Your task to perform on an android device: toggle data saver in the chrome app Image 0: 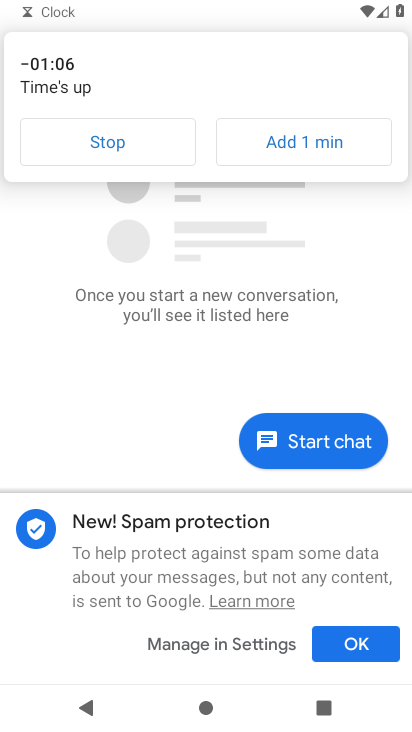
Step 0: press home button
Your task to perform on an android device: toggle data saver in the chrome app Image 1: 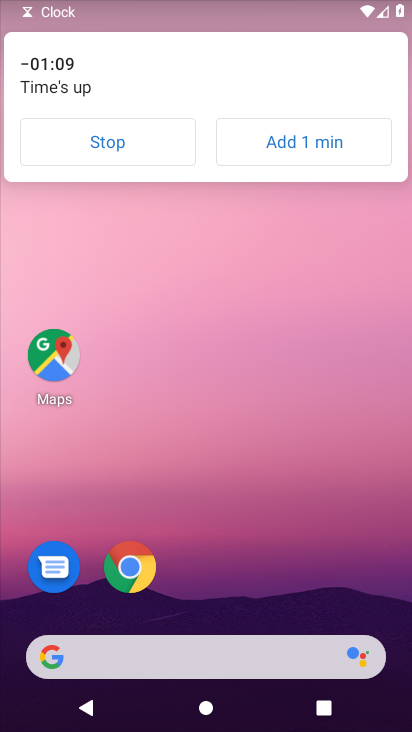
Step 1: drag from (372, 581) to (367, 225)
Your task to perform on an android device: toggle data saver in the chrome app Image 2: 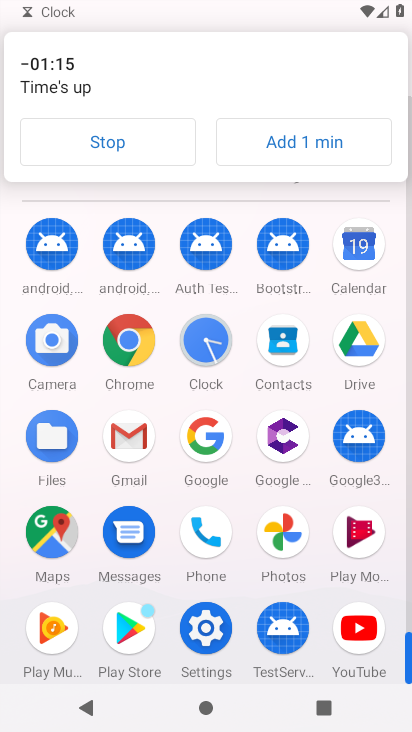
Step 2: click (139, 351)
Your task to perform on an android device: toggle data saver in the chrome app Image 3: 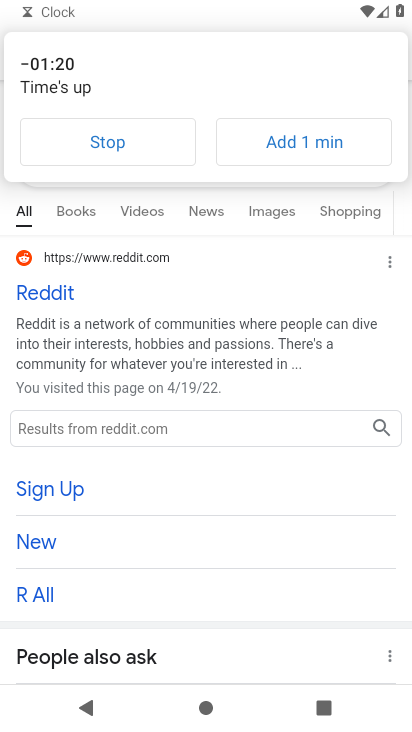
Step 3: click (91, 162)
Your task to perform on an android device: toggle data saver in the chrome app Image 4: 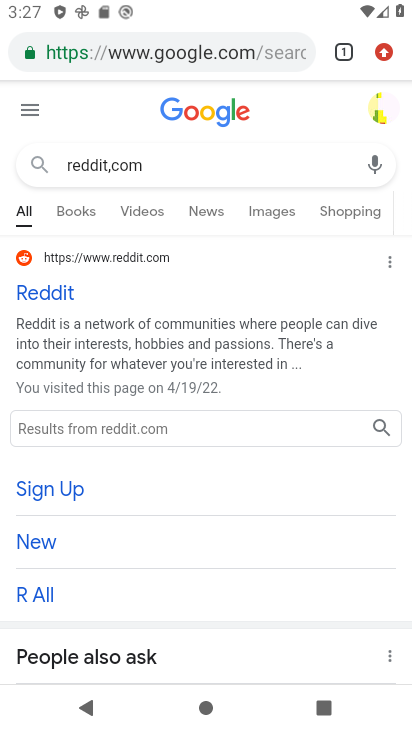
Step 4: click (383, 43)
Your task to perform on an android device: toggle data saver in the chrome app Image 5: 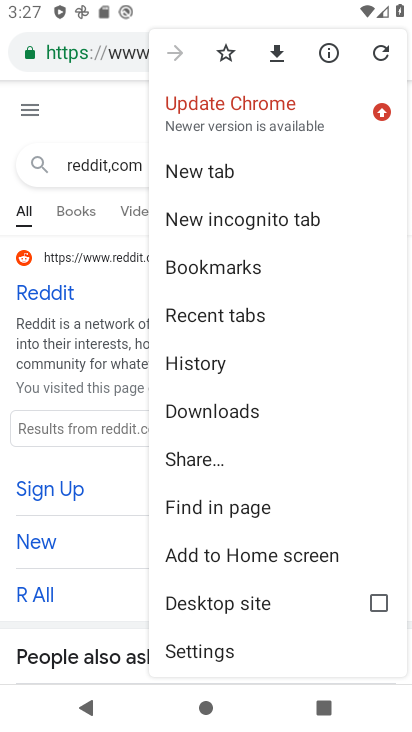
Step 5: click (218, 655)
Your task to perform on an android device: toggle data saver in the chrome app Image 6: 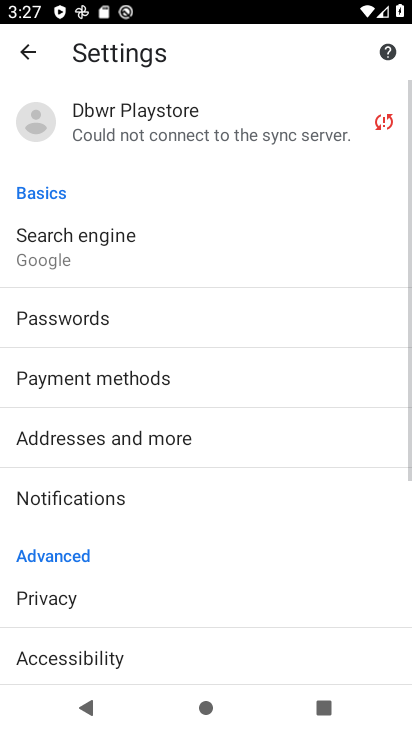
Step 6: drag from (262, 585) to (282, 384)
Your task to perform on an android device: toggle data saver in the chrome app Image 7: 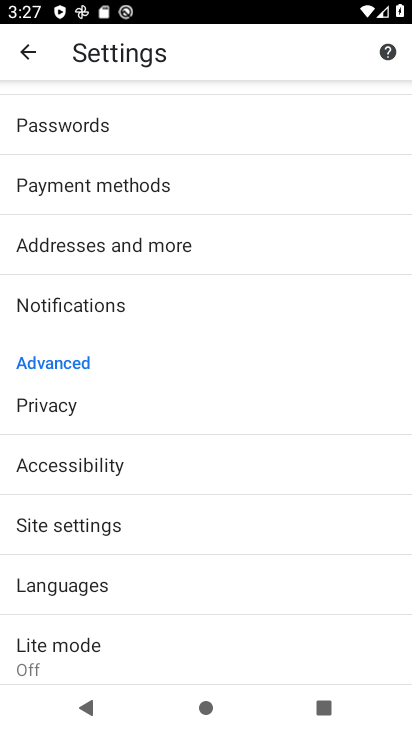
Step 7: drag from (302, 531) to (311, 378)
Your task to perform on an android device: toggle data saver in the chrome app Image 8: 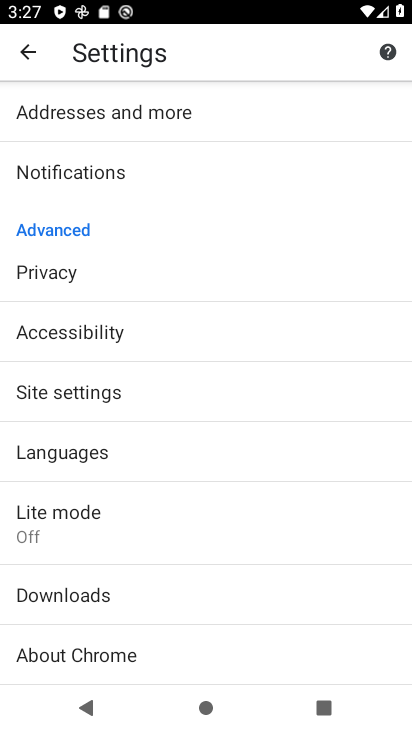
Step 8: drag from (305, 587) to (317, 412)
Your task to perform on an android device: toggle data saver in the chrome app Image 9: 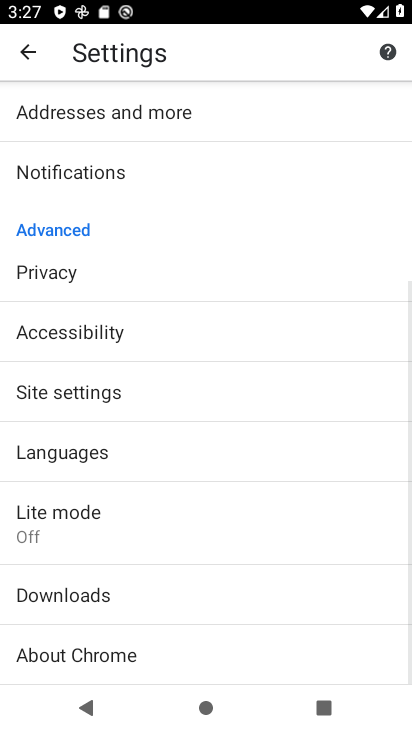
Step 9: drag from (328, 323) to (330, 471)
Your task to perform on an android device: toggle data saver in the chrome app Image 10: 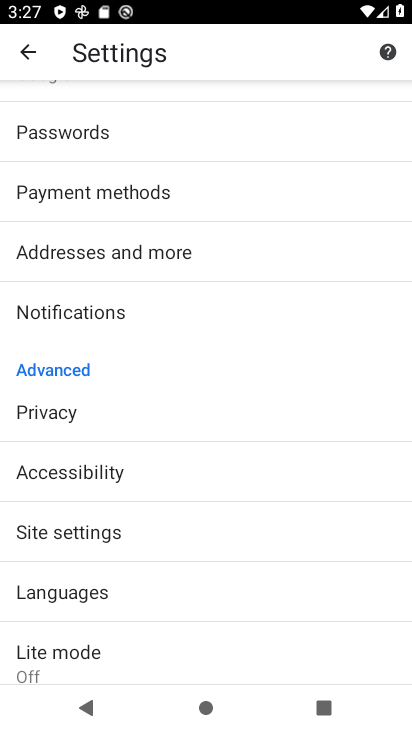
Step 10: drag from (338, 326) to (341, 514)
Your task to perform on an android device: toggle data saver in the chrome app Image 11: 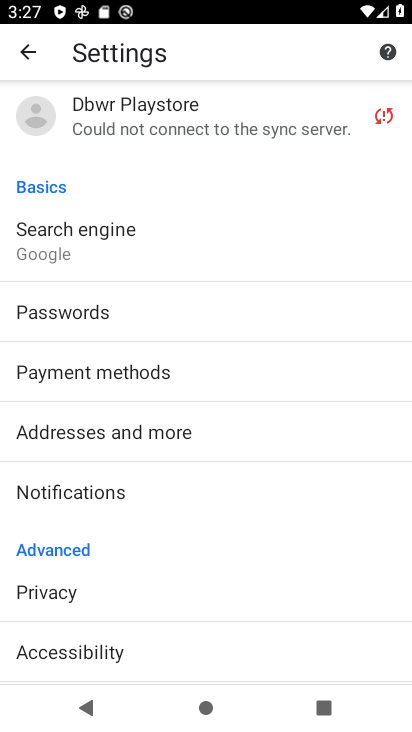
Step 11: drag from (348, 304) to (346, 466)
Your task to perform on an android device: toggle data saver in the chrome app Image 12: 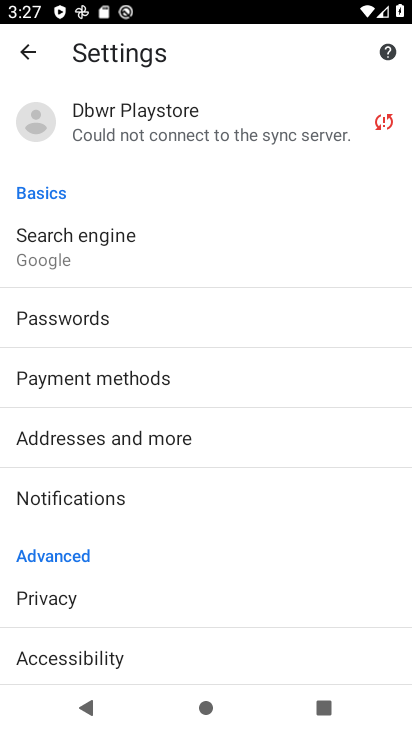
Step 12: drag from (321, 596) to (331, 361)
Your task to perform on an android device: toggle data saver in the chrome app Image 13: 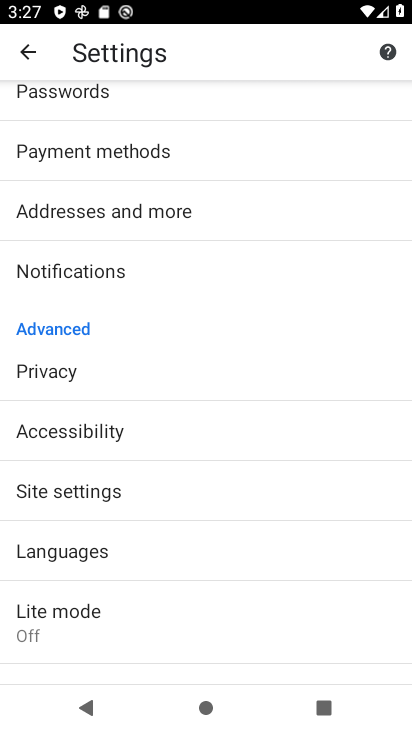
Step 13: click (186, 629)
Your task to perform on an android device: toggle data saver in the chrome app Image 14: 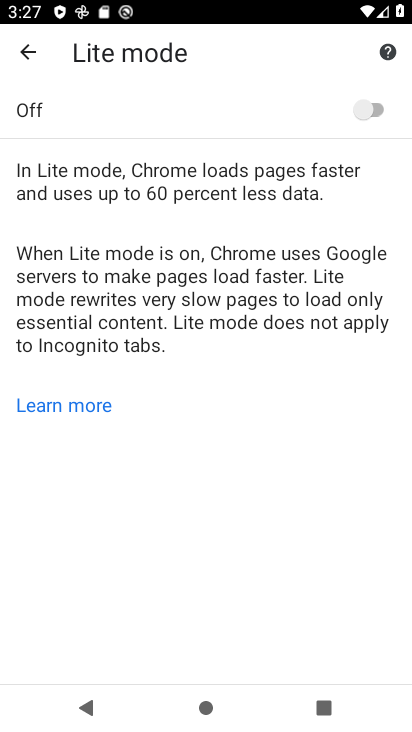
Step 14: click (362, 111)
Your task to perform on an android device: toggle data saver in the chrome app Image 15: 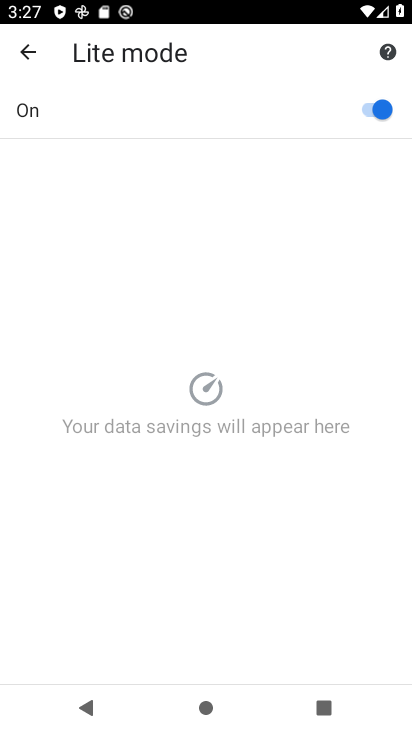
Step 15: task complete